Your task to perform on an android device: Check the weather Image 0: 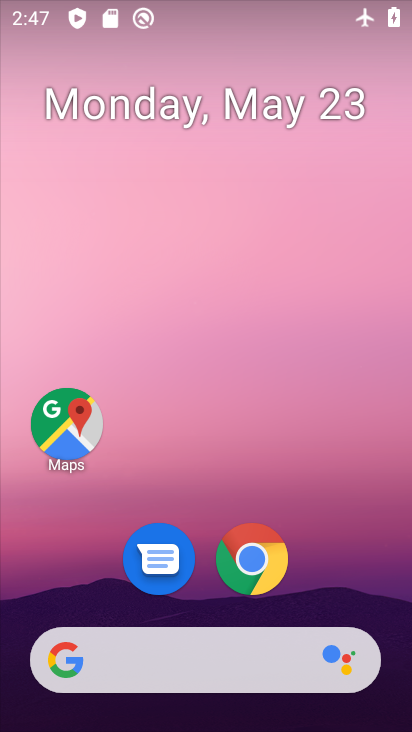
Step 0: drag from (288, 593) to (328, 120)
Your task to perform on an android device: Check the weather Image 1: 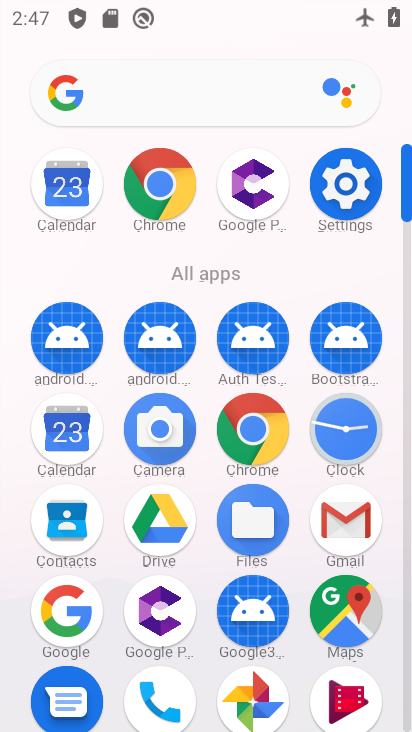
Step 1: drag from (217, 614) to (228, 364)
Your task to perform on an android device: Check the weather Image 2: 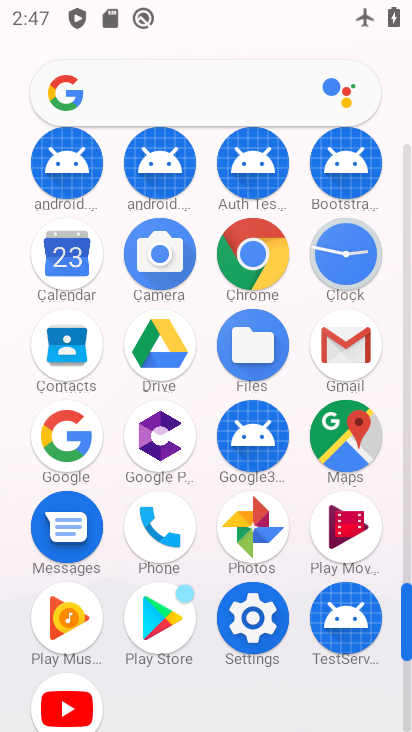
Step 2: click (81, 441)
Your task to perform on an android device: Check the weather Image 3: 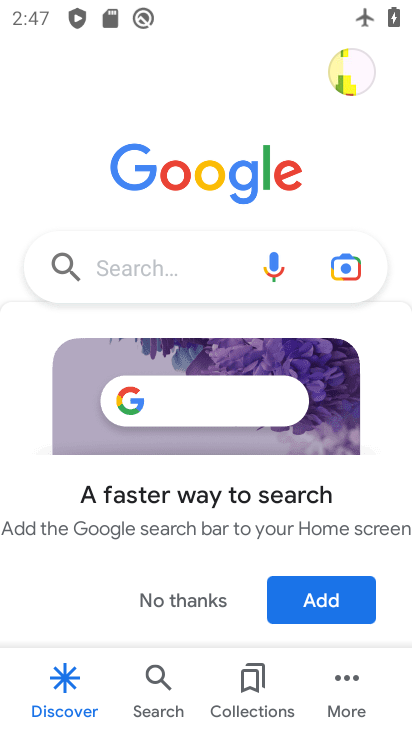
Step 3: click (167, 285)
Your task to perform on an android device: Check the weather Image 4: 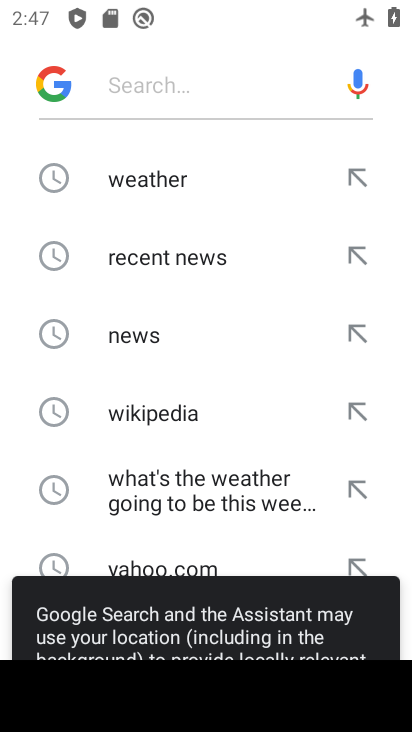
Step 4: click (199, 182)
Your task to perform on an android device: Check the weather Image 5: 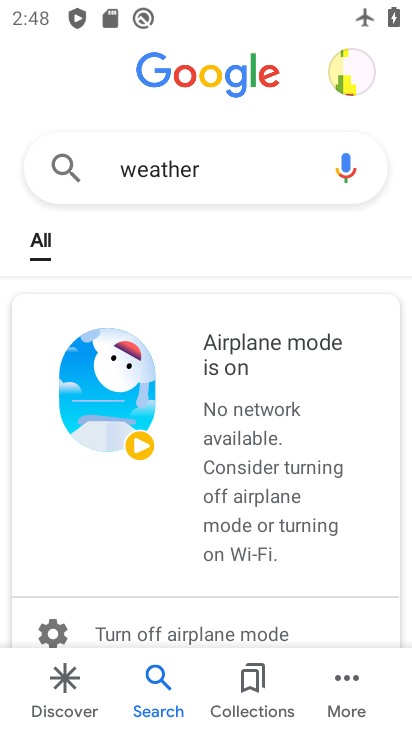
Step 5: task complete